Your task to perform on an android device: Open Android settings Image 0: 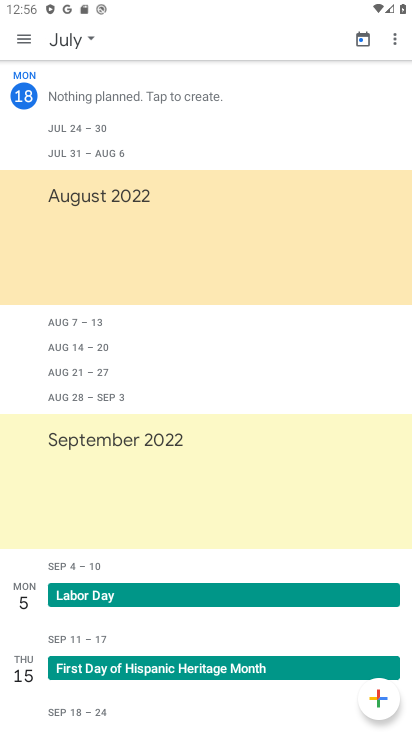
Step 0: press home button
Your task to perform on an android device: Open Android settings Image 1: 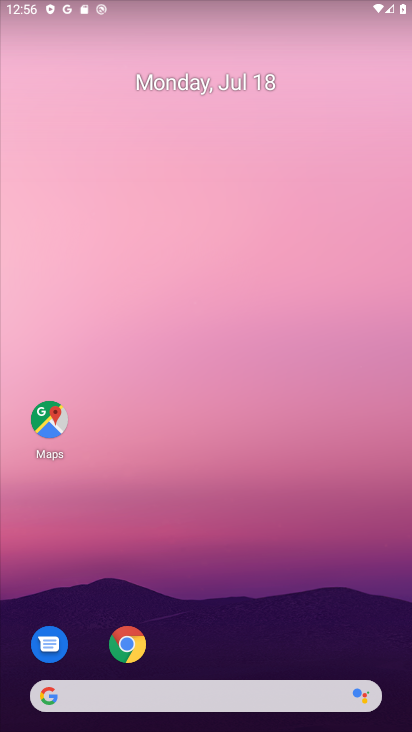
Step 1: drag from (293, 694) to (313, 201)
Your task to perform on an android device: Open Android settings Image 2: 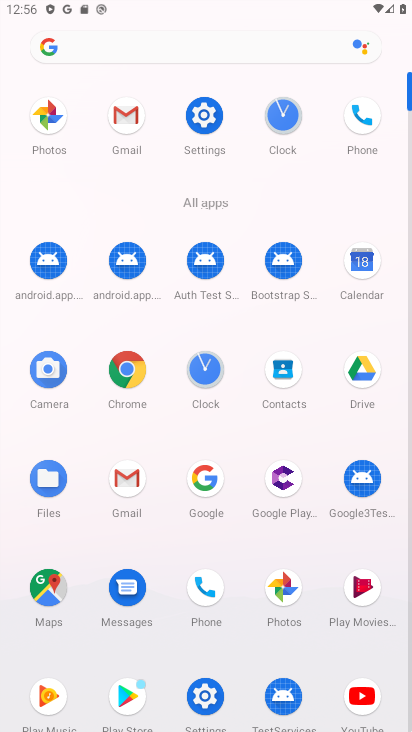
Step 2: click (220, 687)
Your task to perform on an android device: Open Android settings Image 3: 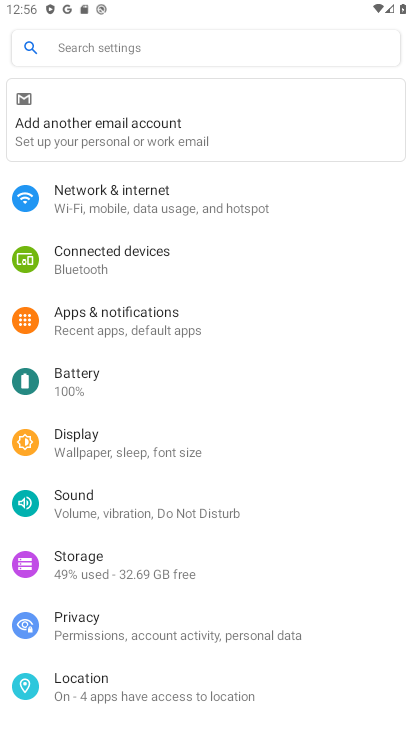
Step 3: task complete